Your task to perform on an android device: open app "Life360: Find Family & Friends" (install if not already installed), go to login, and select forgot password Image 0: 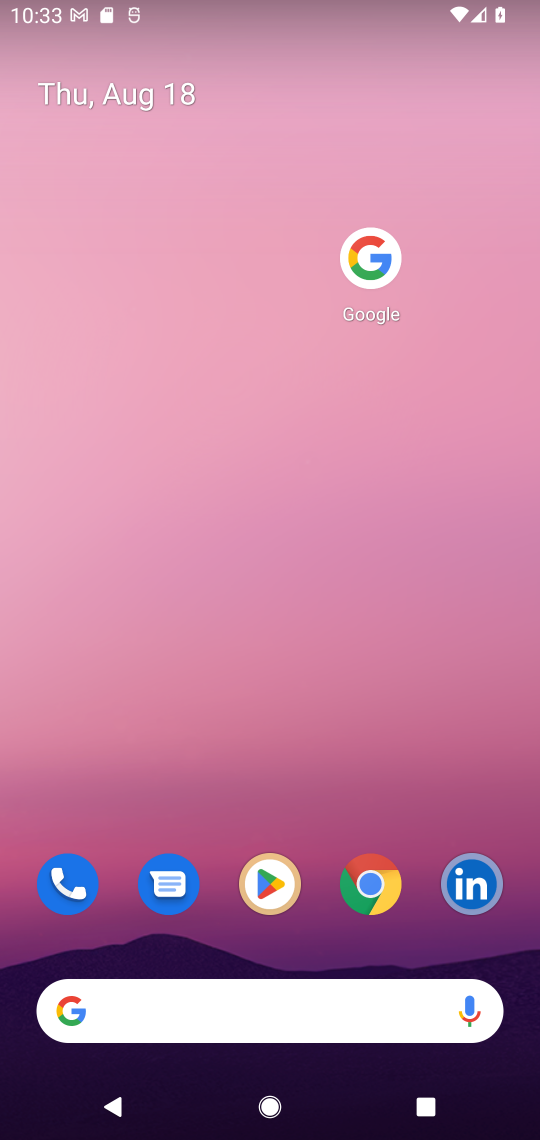
Step 0: task complete